Your task to perform on an android device: Search for "corsair k70" on target, select the first entry, and add it to the cart. Image 0: 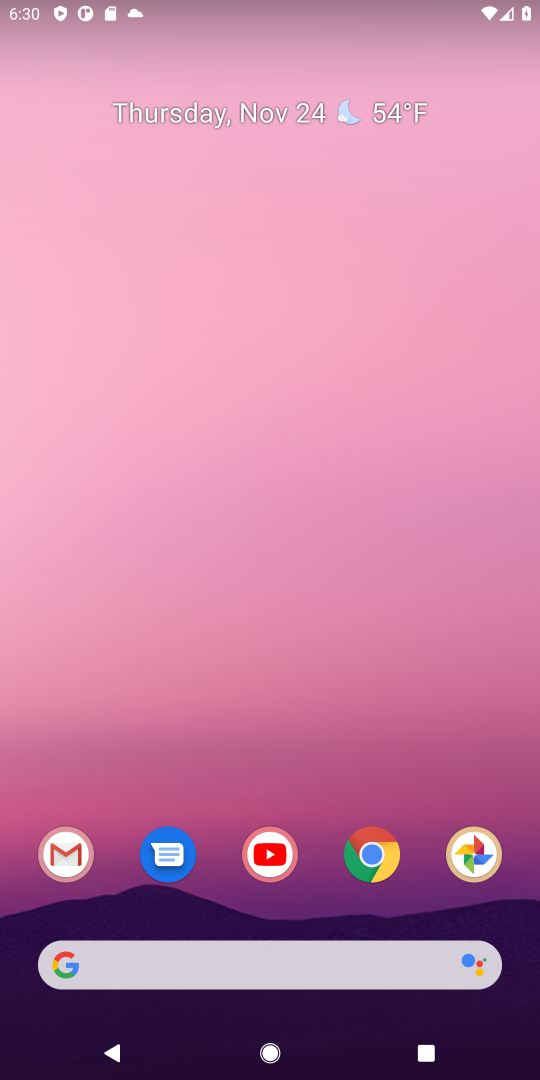
Step 0: click (373, 865)
Your task to perform on an android device: Search for "corsair k70" on target, select the first entry, and add it to the cart. Image 1: 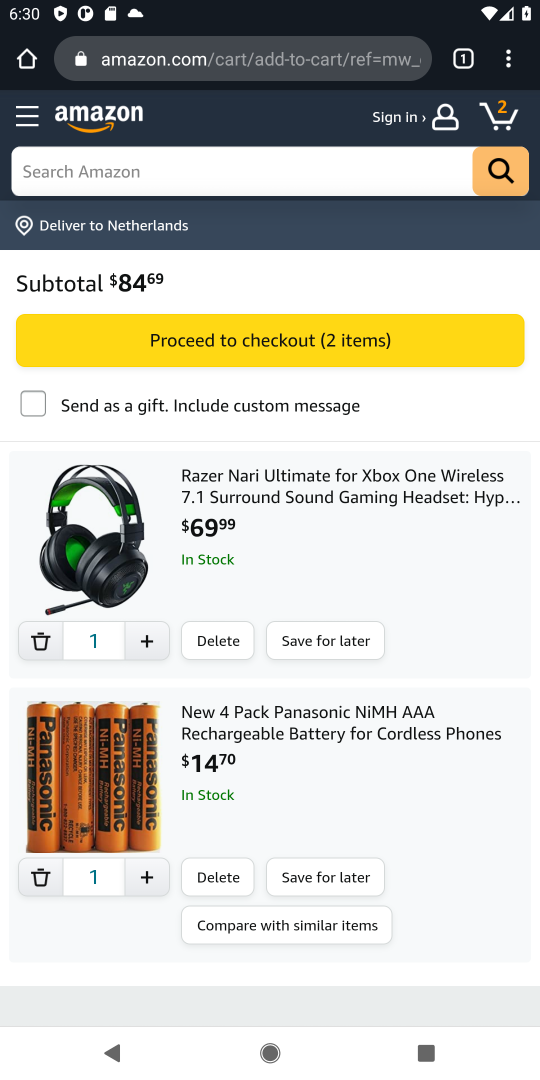
Step 1: click (175, 51)
Your task to perform on an android device: Search for "corsair k70" on target, select the first entry, and add it to the cart. Image 2: 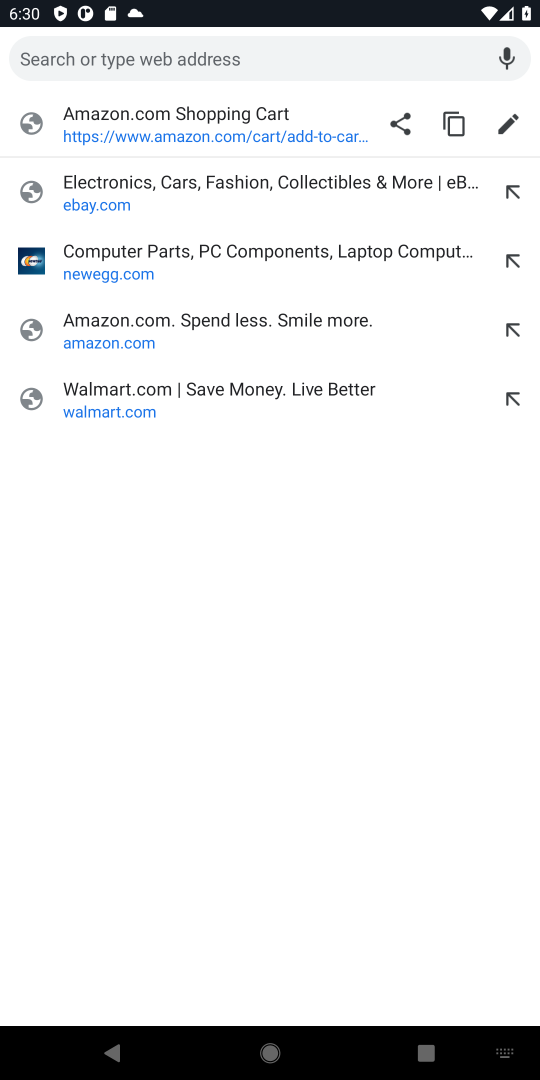
Step 2: type "target.com"
Your task to perform on an android device: Search for "corsair k70" on target, select the first entry, and add it to the cart. Image 3: 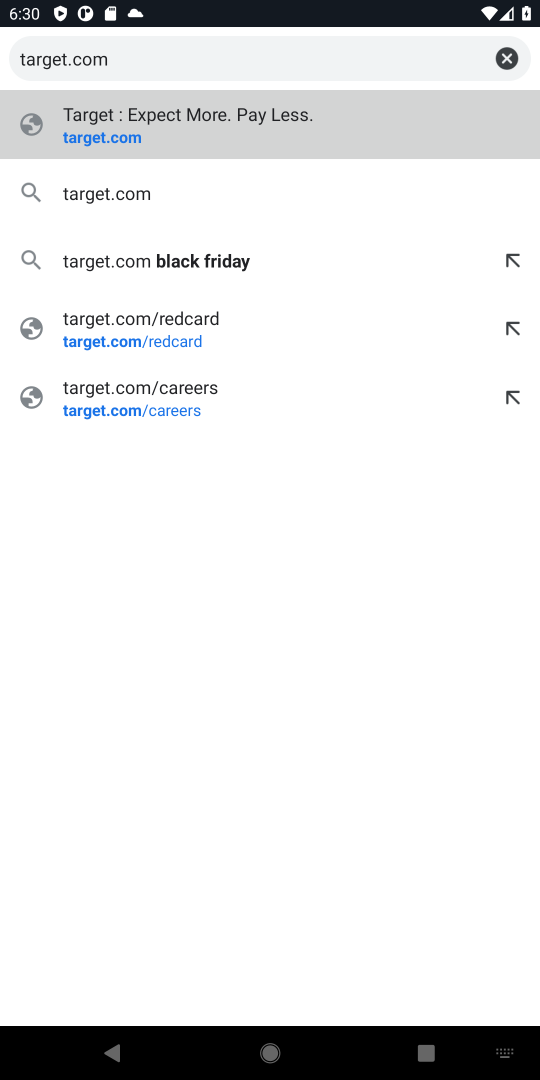
Step 3: click (80, 146)
Your task to perform on an android device: Search for "corsair k70" on target, select the first entry, and add it to the cart. Image 4: 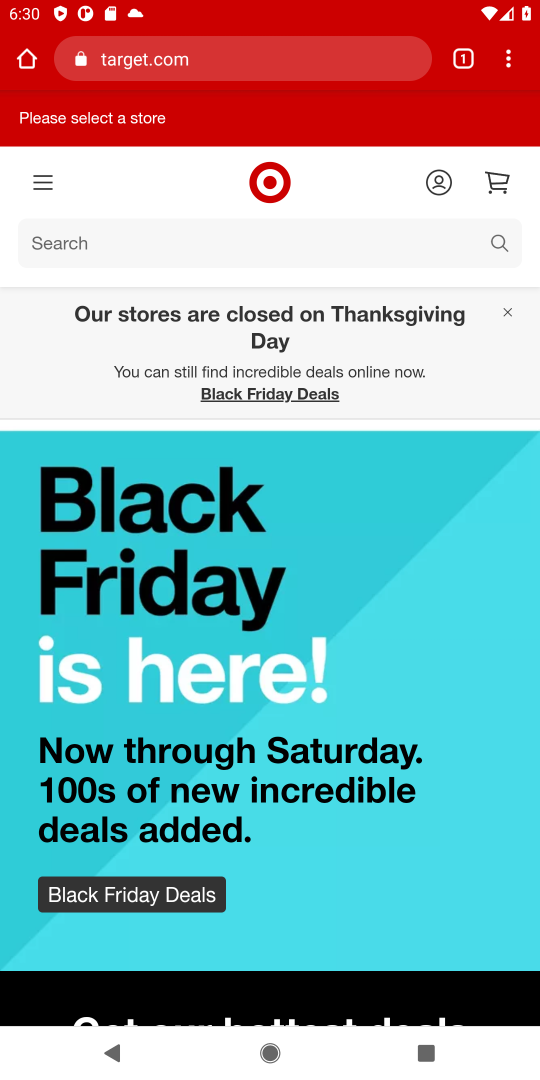
Step 4: click (488, 240)
Your task to perform on an android device: Search for "corsair k70" on target, select the first entry, and add it to the cart. Image 5: 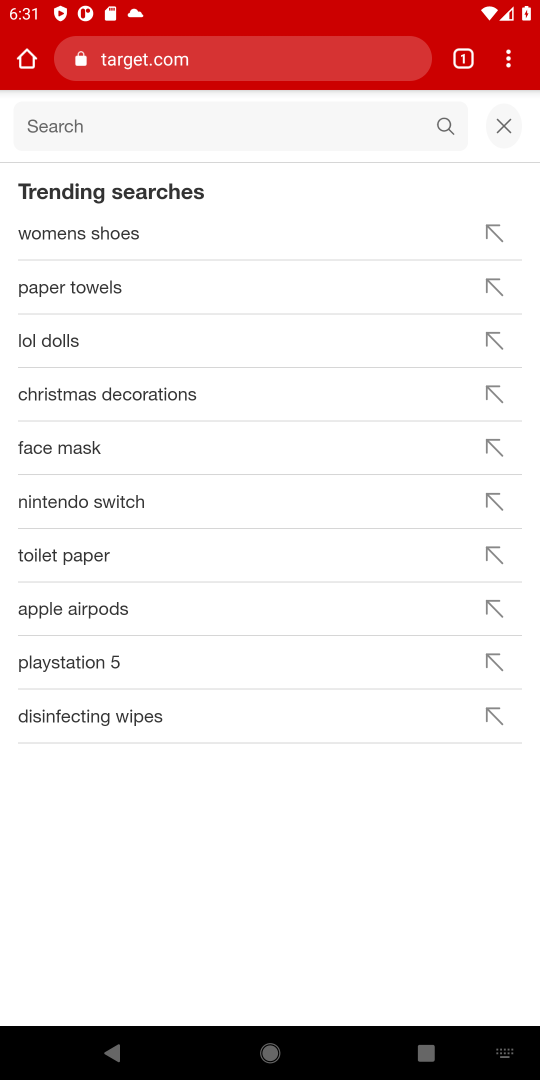
Step 5: type "corsair k70"
Your task to perform on an android device: Search for "corsair k70" on target, select the first entry, and add it to the cart. Image 6: 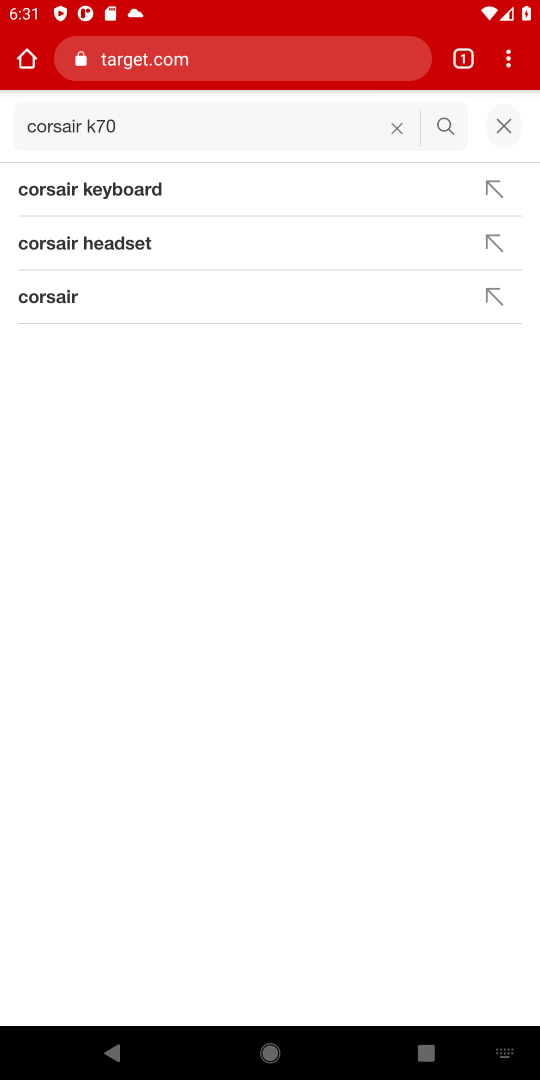
Step 6: click (438, 126)
Your task to perform on an android device: Search for "corsair k70" on target, select the first entry, and add it to the cart. Image 7: 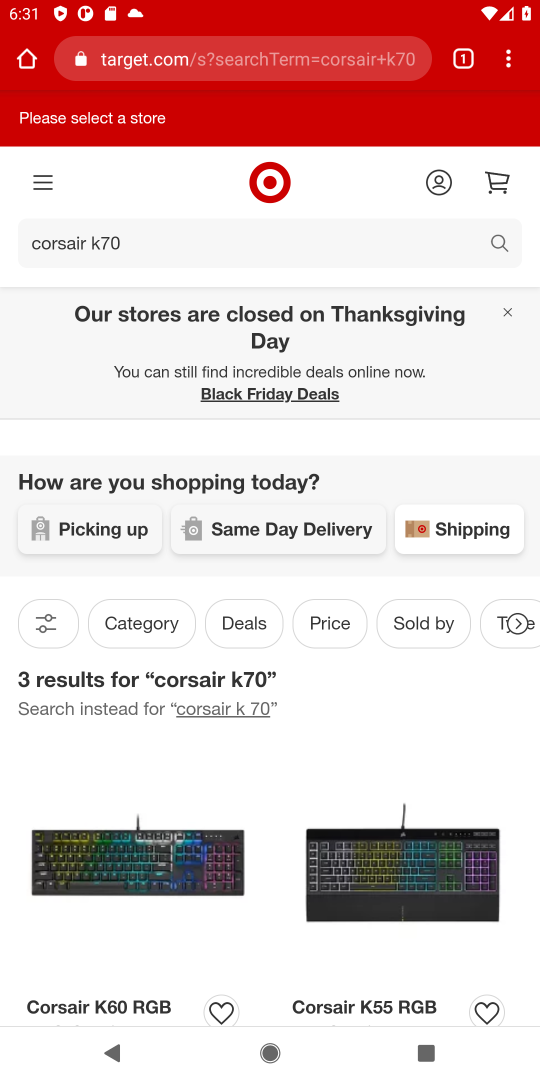
Step 7: task complete